Your task to perform on an android device: Is it going to rain this weekend? Image 0: 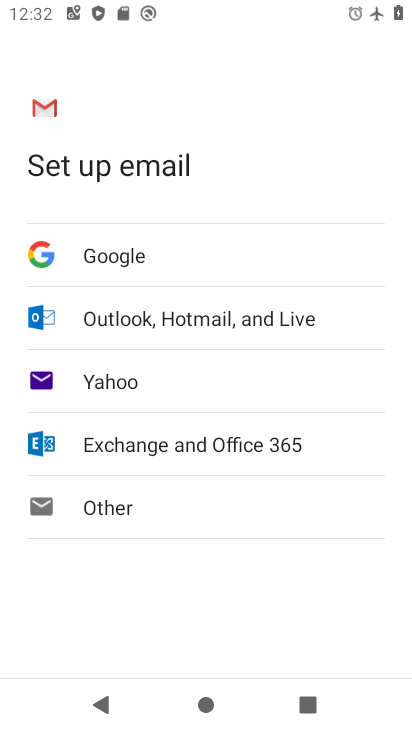
Step 0: press home button
Your task to perform on an android device: Is it going to rain this weekend? Image 1: 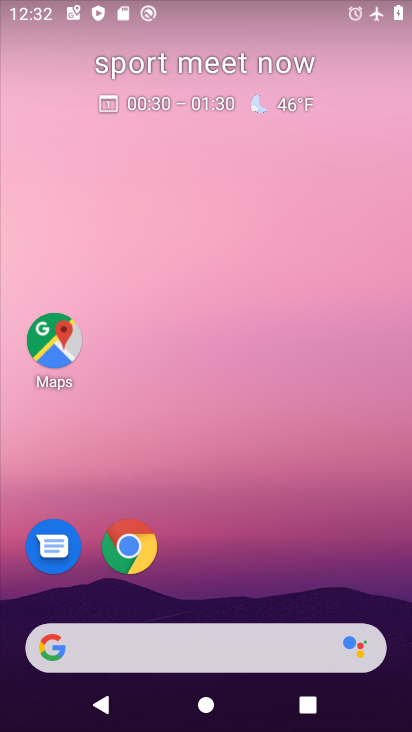
Step 1: click (296, 106)
Your task to perform on an android device: Is it going to rain this weekend? Image 2: 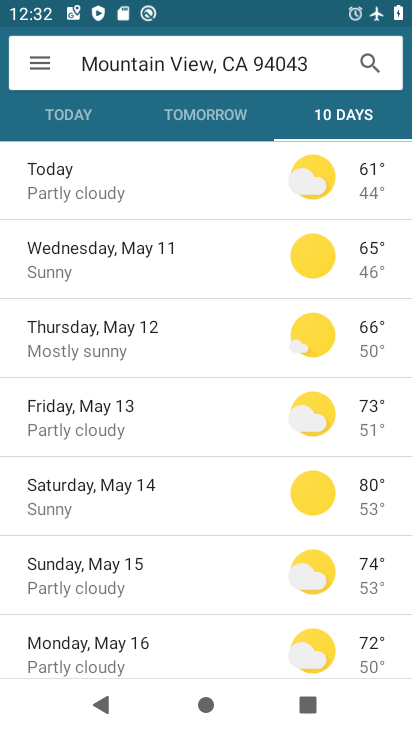
Step 2: task complete